Your task to perform on an android device: star an email in the gmail app Image 0: 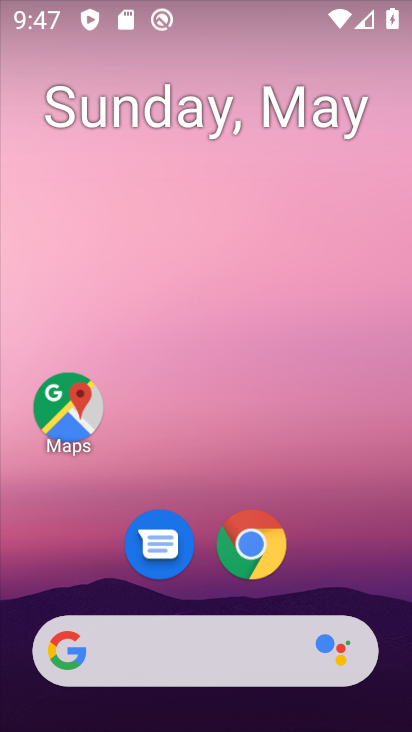
Step 0: drag from (346, 561) to (288, 163)
Your task to perform on an android device: star an email in the gmail app Image 1: 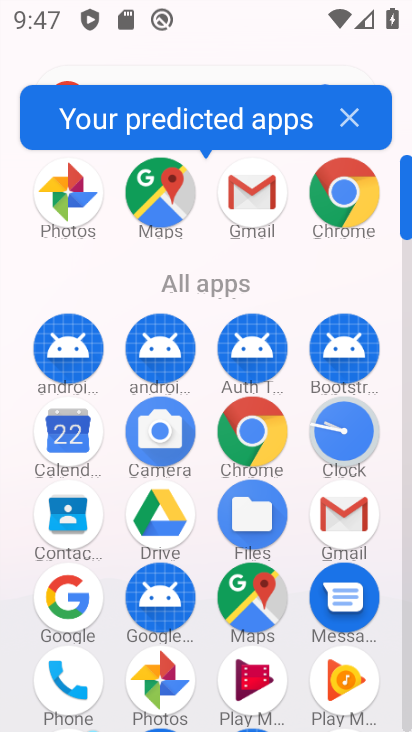
Step 1: click (238, 205)
Your task to perform on an android device: star an email in the gmail app Image 2: 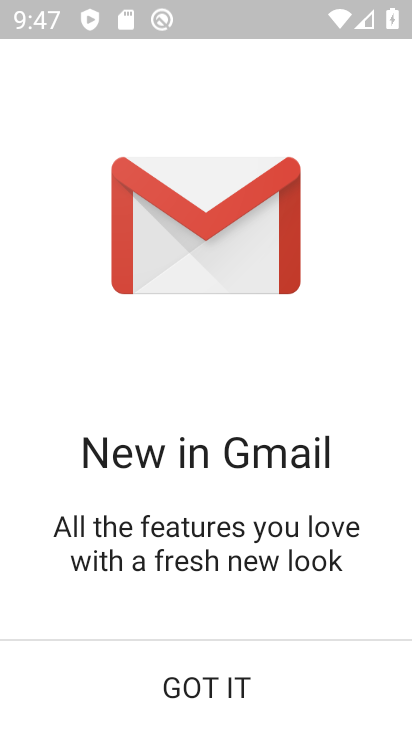
Step 2: click (234, 681)
Your task to perform on an android device: star an email in the gmail app Image 3: 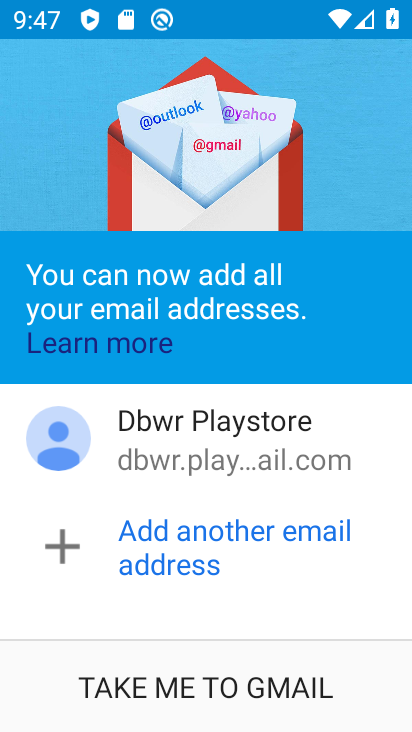
Step 3: click (232, 678)
Your task to perform on an android device: star an email in the gmail app Image 4: 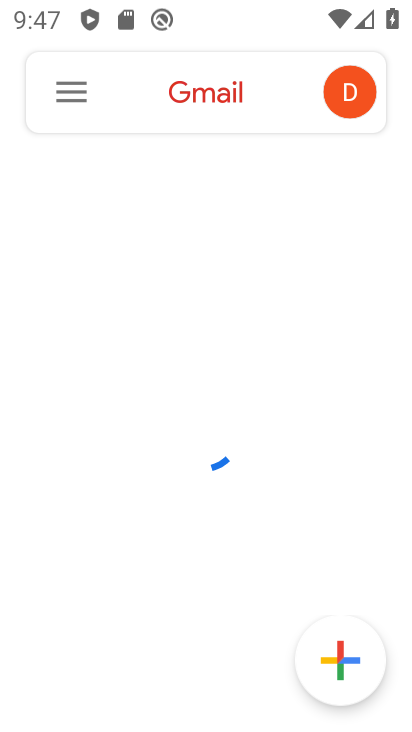
Step 4: click (52, 78)
Your task to perform on an android device: star an email in the gmail app Image 5: 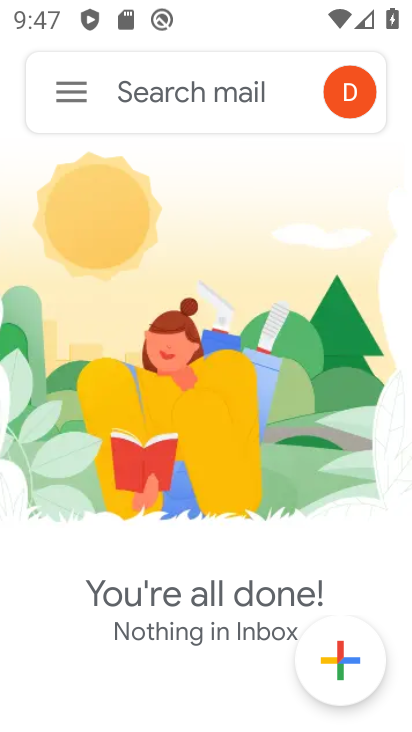
Step 5: click (49, 84)
Your task to perform on an android device: star an email in the gmail app Image 6: 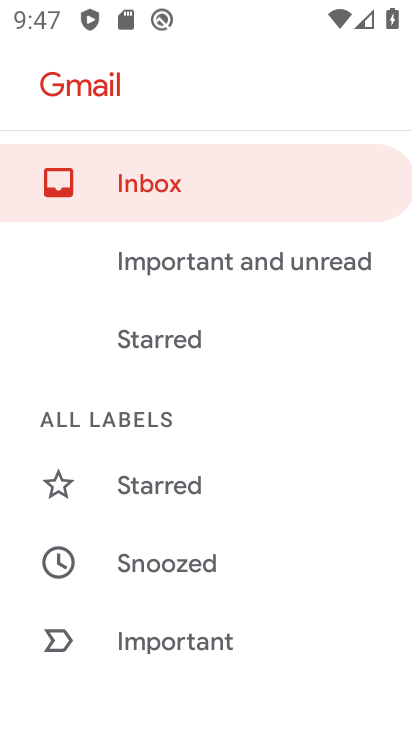
Step 6: click (166, 500)
Your task to perform on an android device: star an email in the gmail app Image 7: 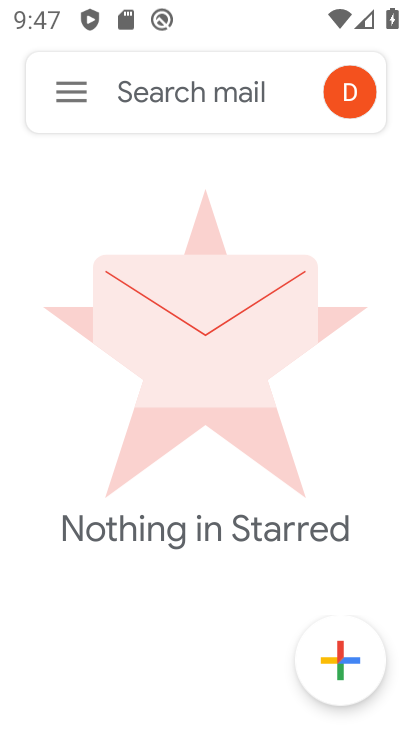
Step 7: task complete